Your task to perform on an android device: Open Google Chrome and open the bookmarks view Image 0: 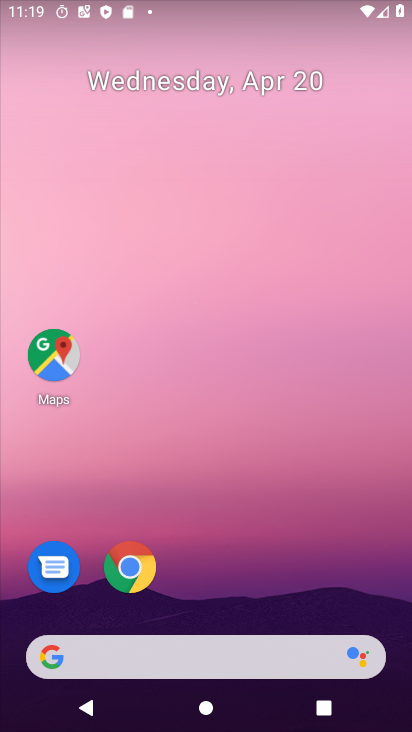
Step 0: click (129, 575)
Your task to perform on an android device: Open Google Chrome and open the bookmarks view Image 1: 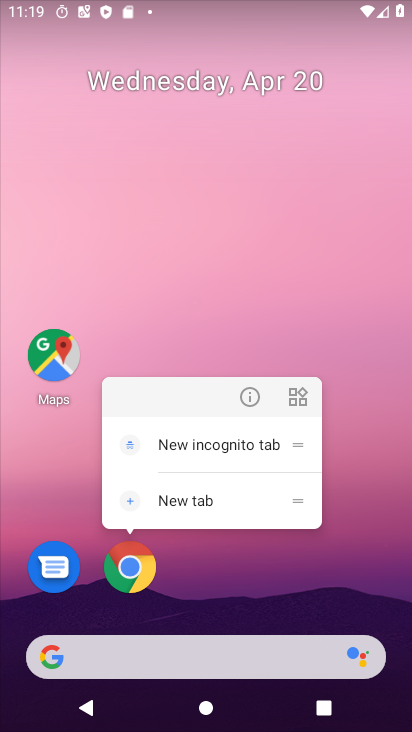
Step 1: click (247, 398)
Your task to perform on an android device: Open Google Chrome and open the bookmarks view Image 2: 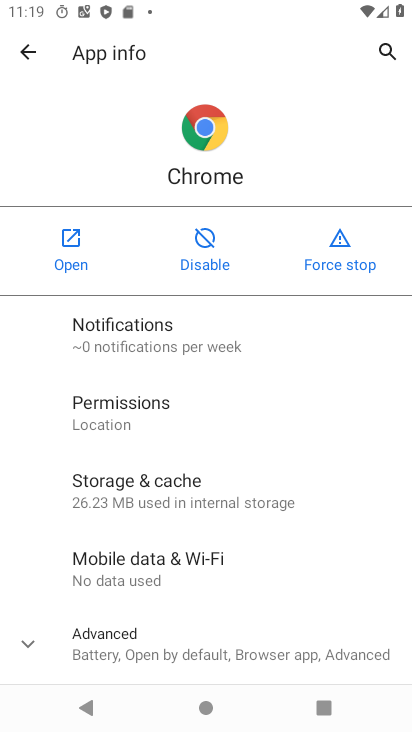
Step 2: click (69, 255)
Your task to perform on an android device: Open Google Chrome and open the bookmarks view Image 3: 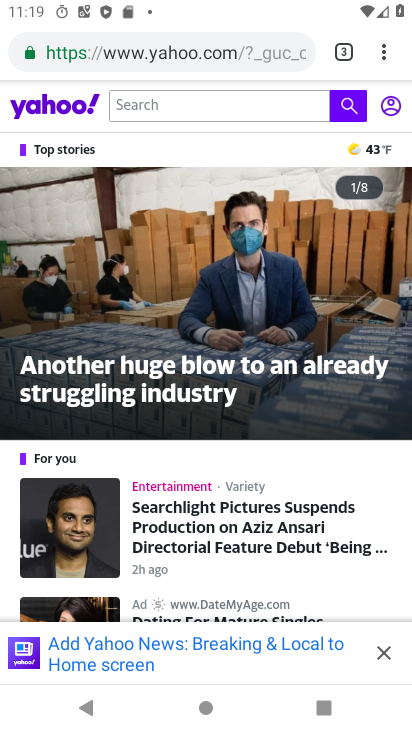
Step 3: click (378, 53)
Your task to perform on an android device: Open Google Chrome and open the bookmarks view Image 4: 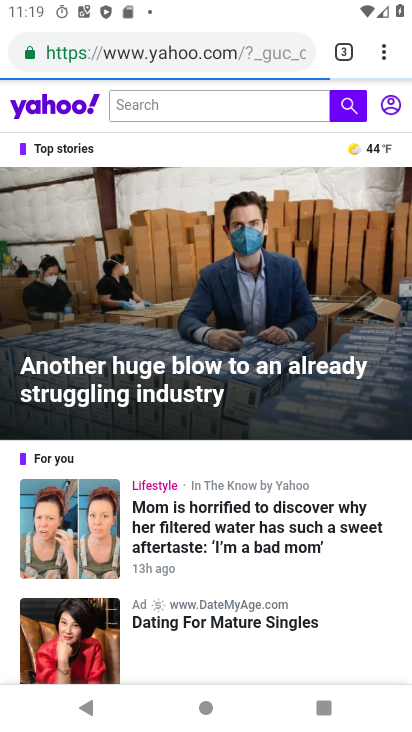
Step 4: click (384, 47)
Your task to perform on an android device: Open Google Chrome and open the bookmarks view Image 5: 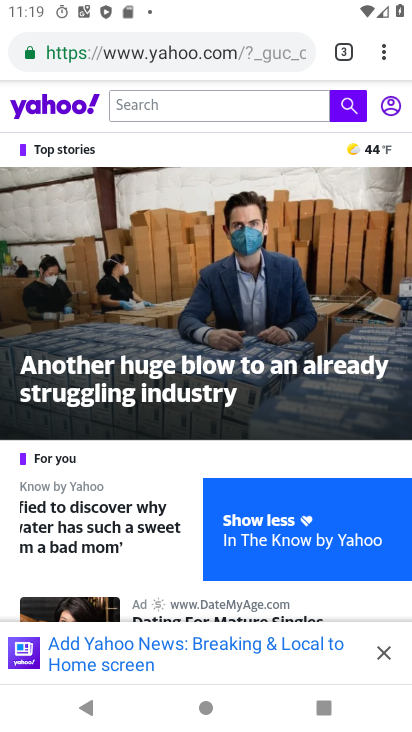
Step 5: click (372, 55)
Your task to perform on an android device: Open Google Chrome and open the bookmarks view Image 6: 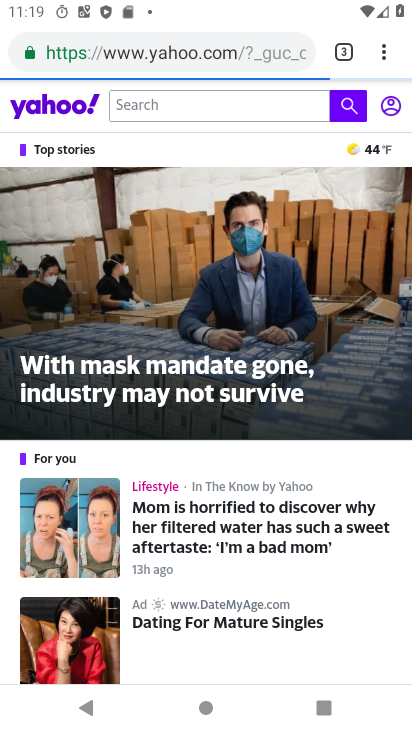
Step 6: click (375, 57)
Your task to perform on an android device: Open Google Chrome and open the bookmarks view Image 7: 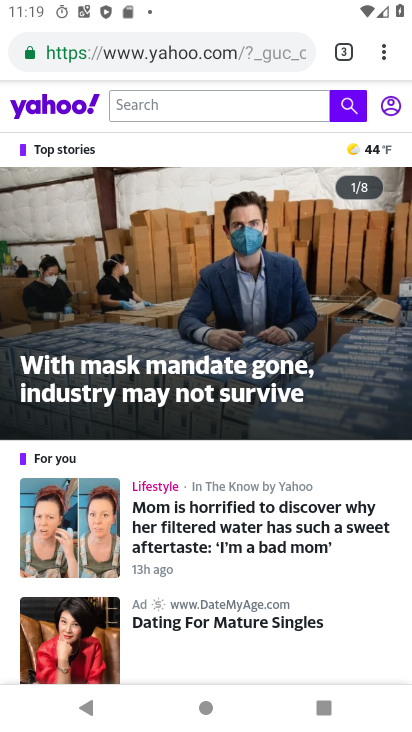
Step 7: click (380, 57)
Your task to perform on an android device: Open Google Chrome and open the bookmarks view Image 8: 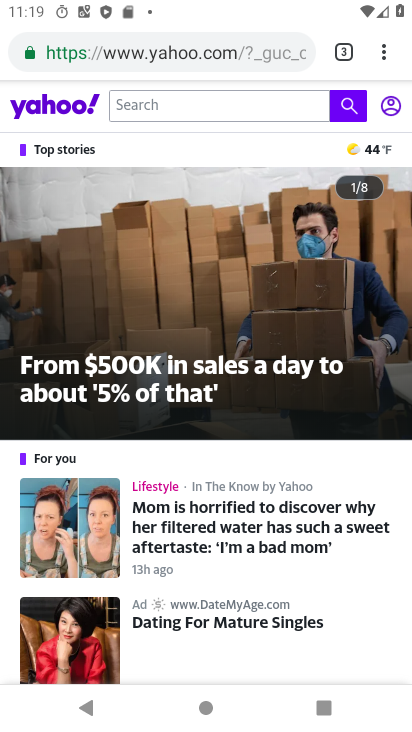
Step 8: click (384, 55)
Your task to perform on an android device: Open Google Chrome and open the bookmarks view Image 9: 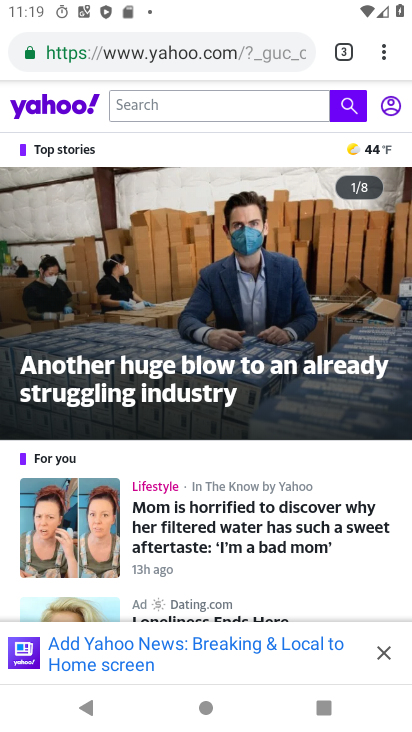
Step 9: click (382, 56)
Your task to perform on an android device: Open Google Chrome and open the bookmarks view Image 10: 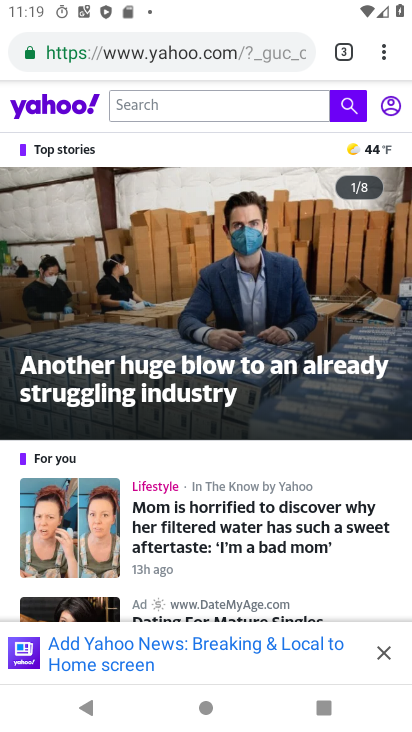
Step 10: click (381, 49)
Your task to perform on an android device: Open Google Chrome and open the bookmarks view Image 11: 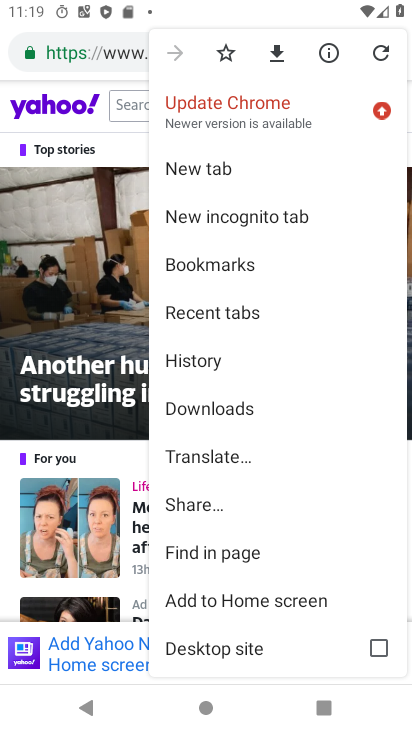
Step 11: click (237, 268)
Your task to perform on an android device: Open Google Chrome and open the bookmarks view Image 12: 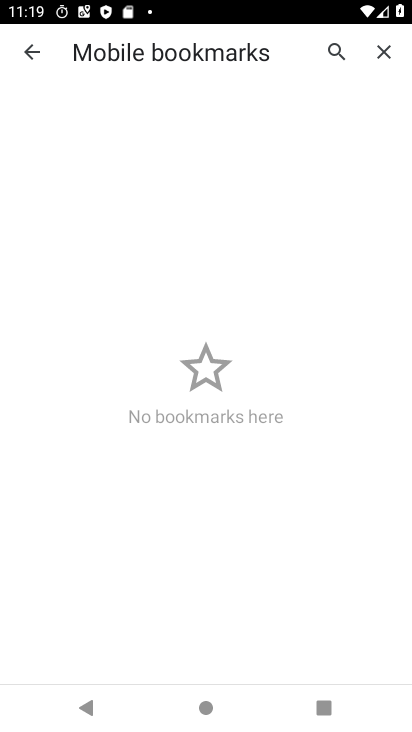
Step 12: task complete